Your task to perform on an android device: turn off location history Image 0: 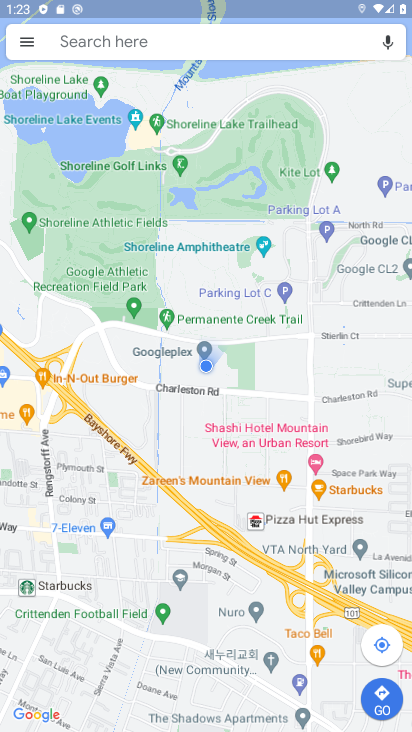
Step 0: press home button
Your task to perform on an android device: turn off location history Image 1: 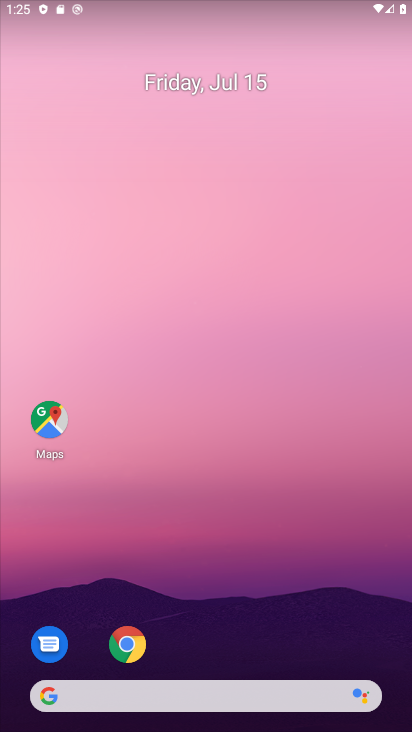
Step 1: drag from (376, 629) to (161, 0)
Your task to perform on an android device: turn off location history Image 2: 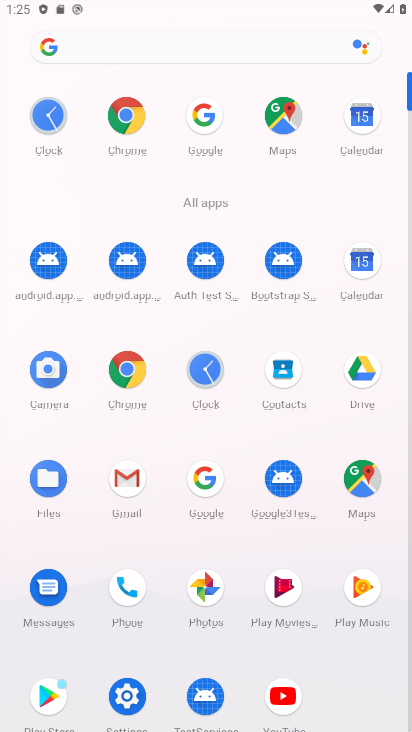
Step 2: click (120, 697)
Your task to perform on an android device: turn off location history Image 3: 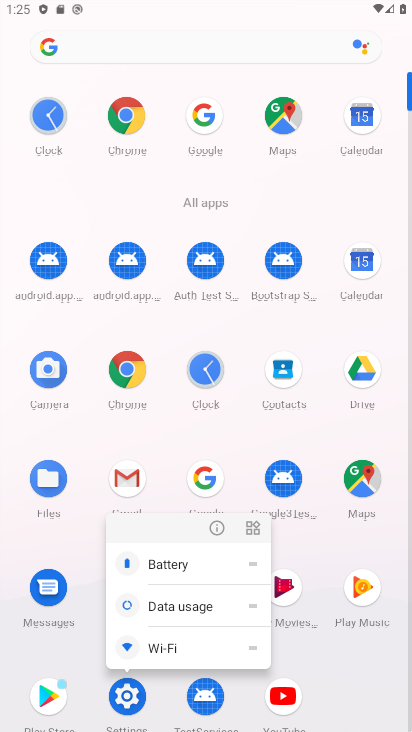
Step 3: click (120, 697)
Your task to perform on an android device: turn off location history Image 4: 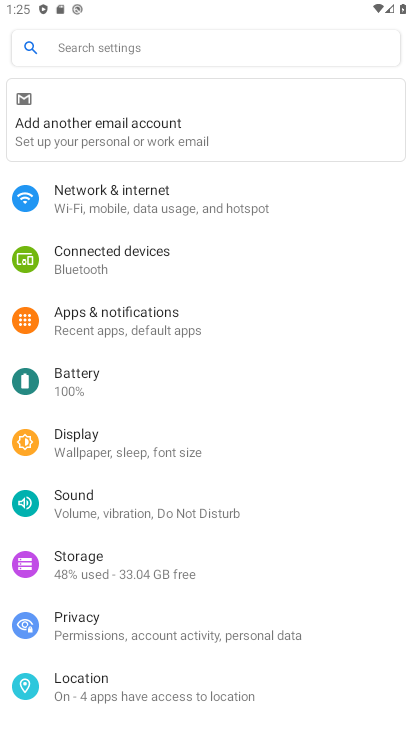
Step 4: click (114, 712)
Your task to perform on an android device: turn off location history Image 5: 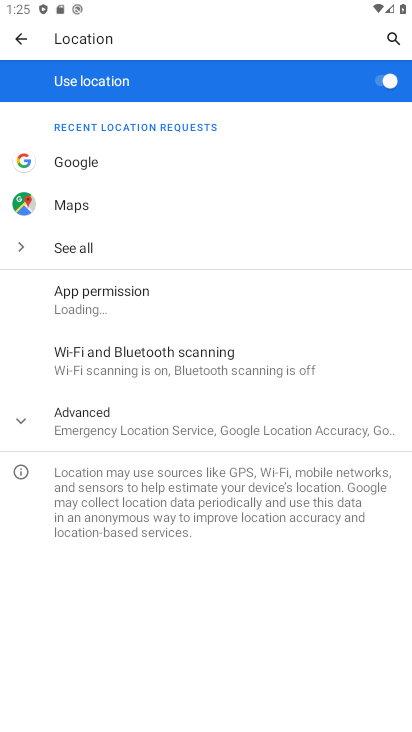
Step 5: click (135, 430)
Your task to perform on an android device: turn off location history Image 6: 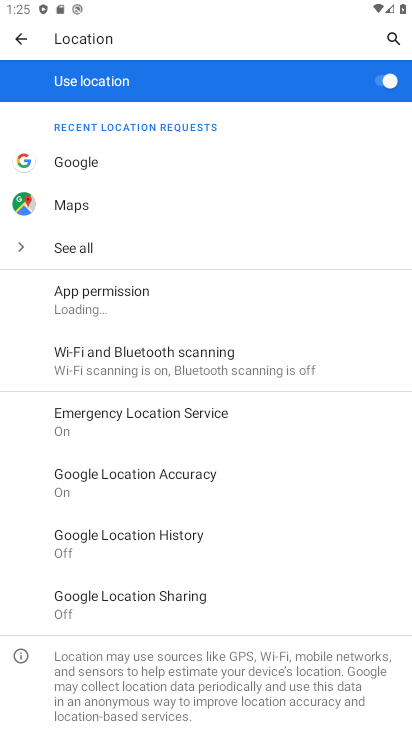
Step 6: click (145, 551)
Your task to perform on an android device: turn off location history Image 7: 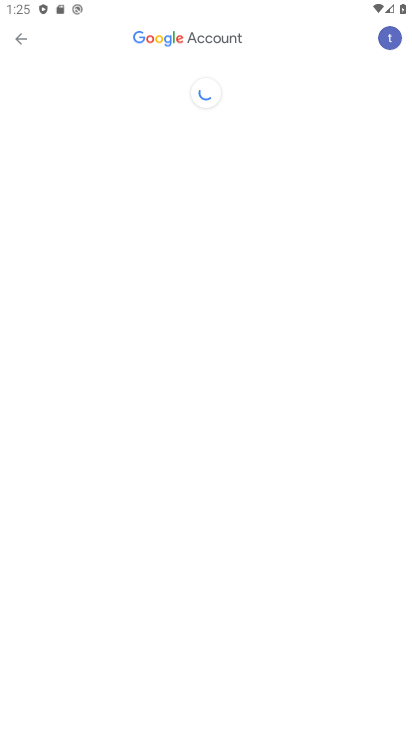
Step 7: task complete